Your task to perform on an android device: find which apps use the phone's location Image 0: 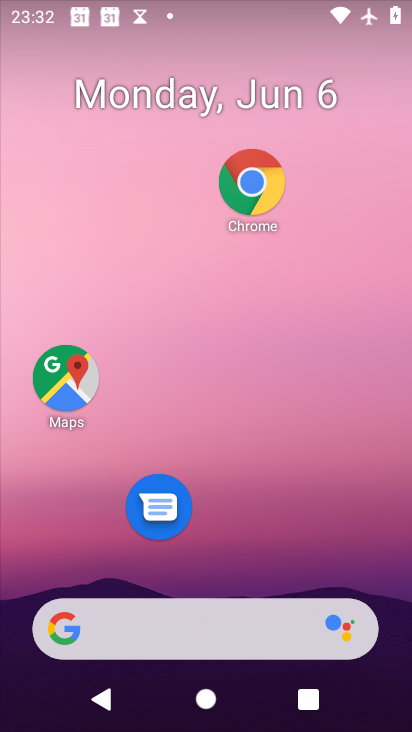
Step 0: drag from (196, 465) to (210, 333)
Your task to perform on an android device: find which apps use the phone's location Image 1: 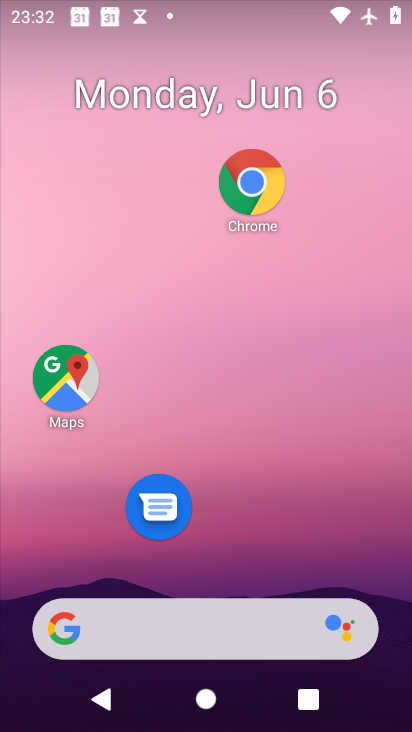
Step 1: drag from (249, 575) to (247, 300)
Your task to perform on an android device: find which apps use the phone's location Image 2: 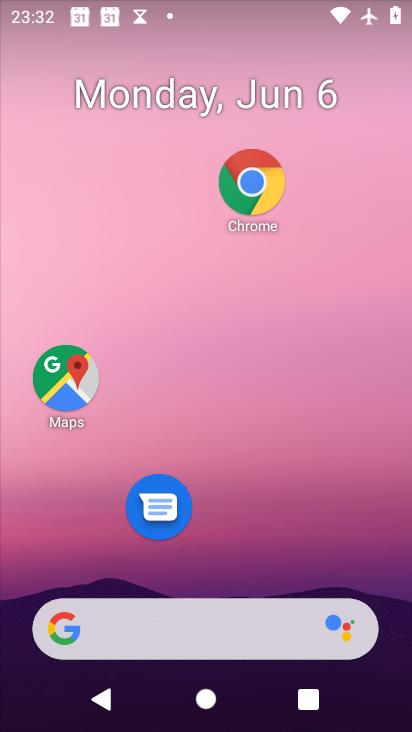
Step 2: drag from (157, 584) to (188, 216)
Your task to perform on an android device: find which apps use the phone's location Image 3: 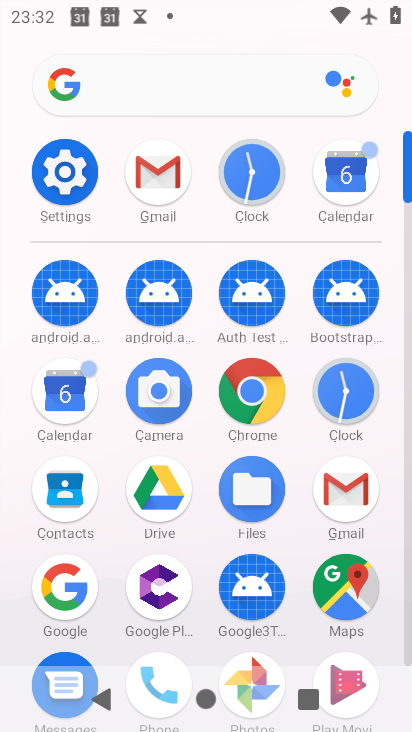
Step 3: click (48, 158)
Your task to perform on an android device: find which apps use the phone's location Image 4: 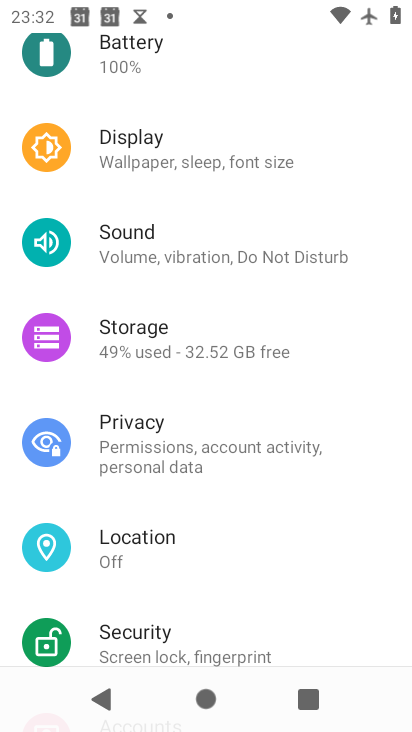
Step 4: click (171, 535)
Your task to perform on an android device: find which apps use the phone's location Image 5: 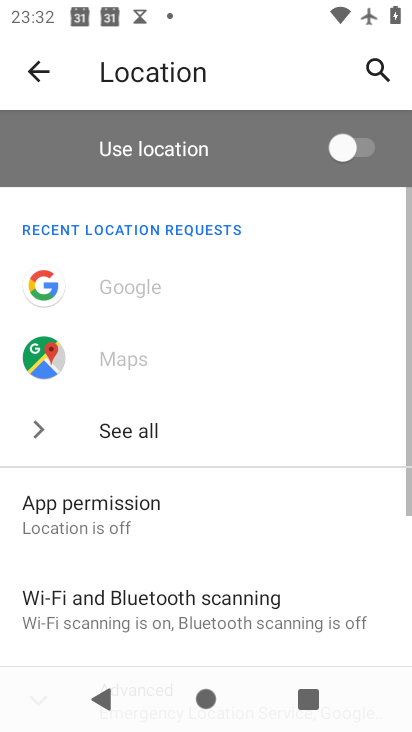
Step 5: task complete